Your task to perform on an android device: Open calendar and show me the first week of next month Image 0: 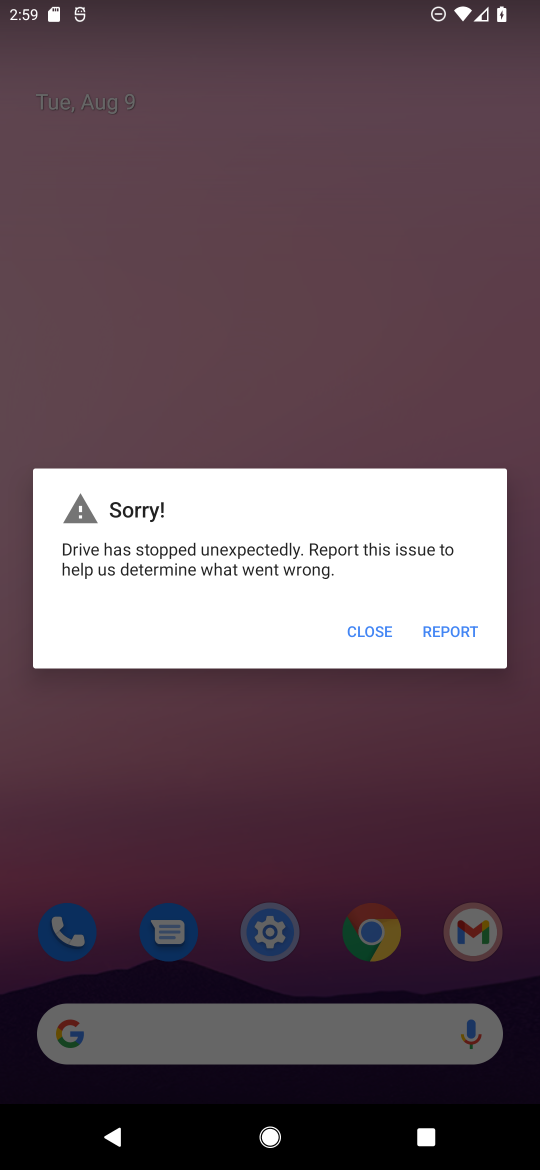
Step 0: press home button
Your task to perform on an android device: Open calendar and show me the first week of next month Image 1: 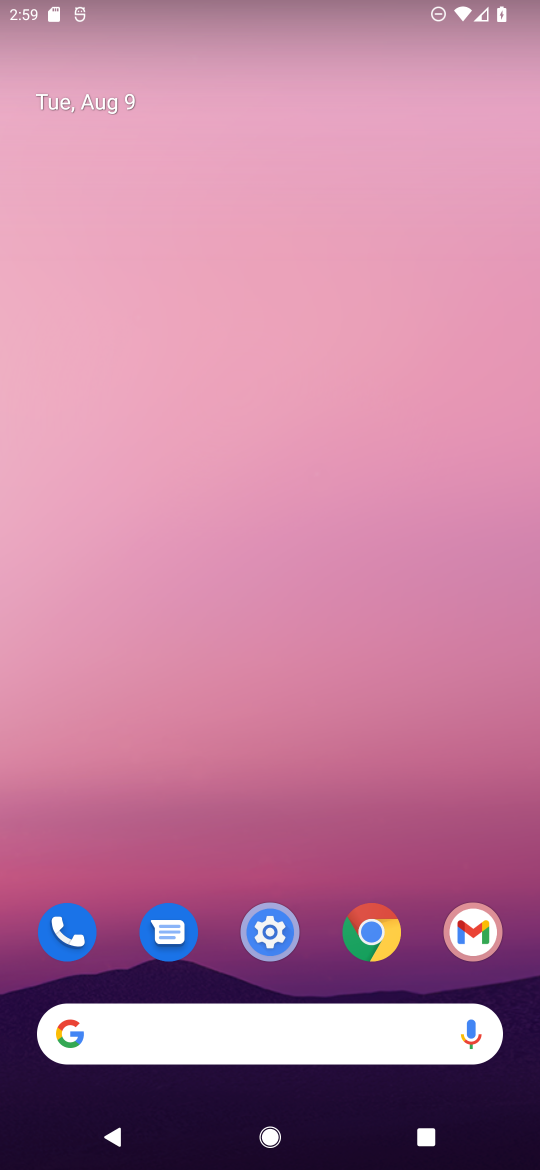
Step 1: drag from (65, 1125) to (340, 447)
Your task to perform on an android device: Open calendar and show me the first week of next month Image 2: 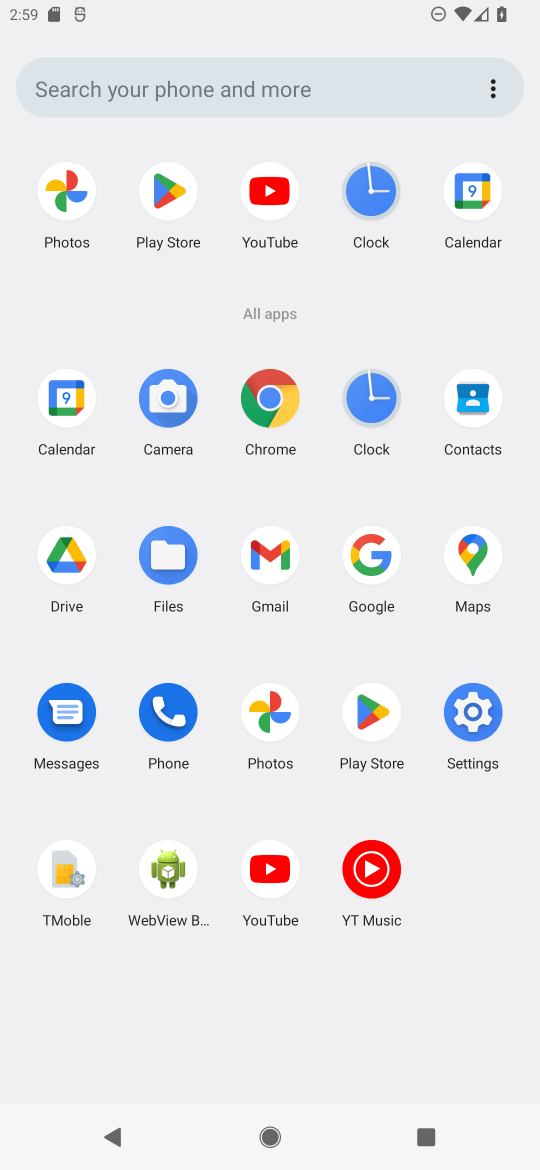
Step 2: click (479, 214)
Your task to perform on an android device: Open calendar and show me the first week of next month Image 3: 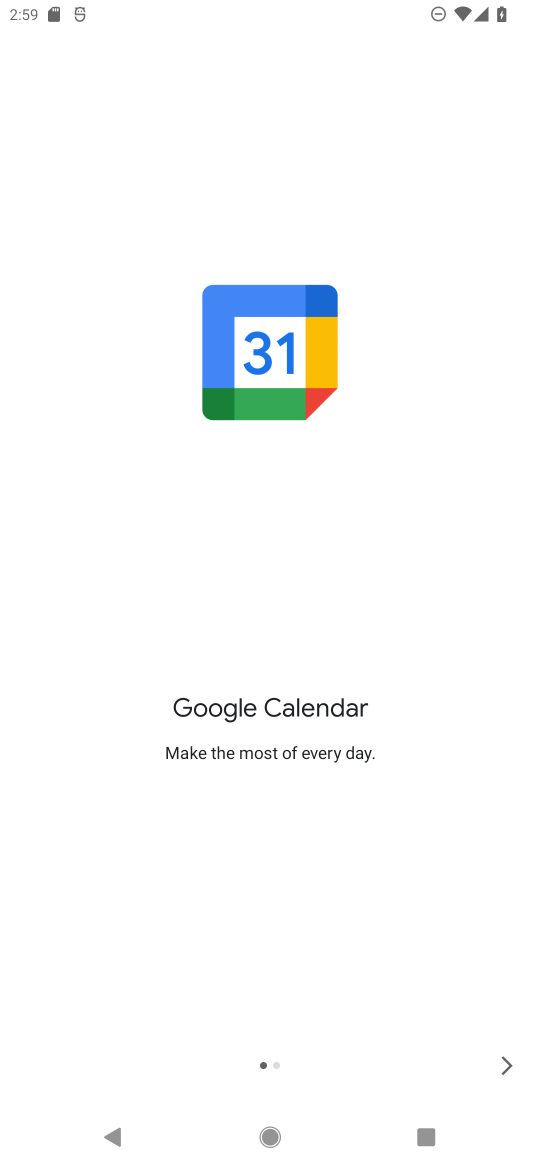
Step 3: click (506, 1065)
Your task to perform on an android device: Open calendar and show me the first week of next month Image 4: 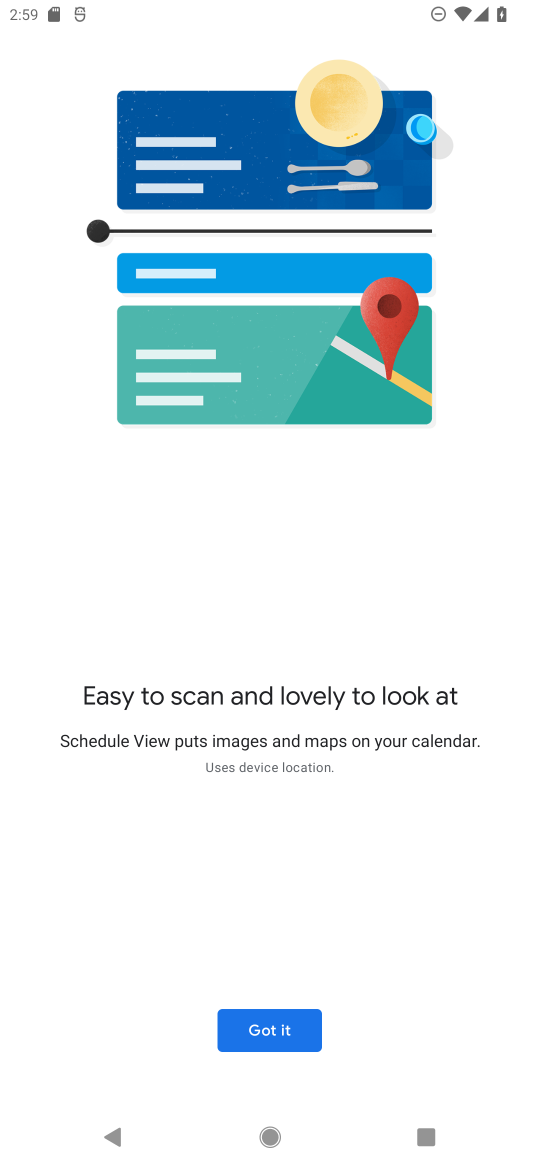
Step 4: click (259, 1023)
Your task to perform on an android device: Open calendar and show me the first week of next month Image 5: 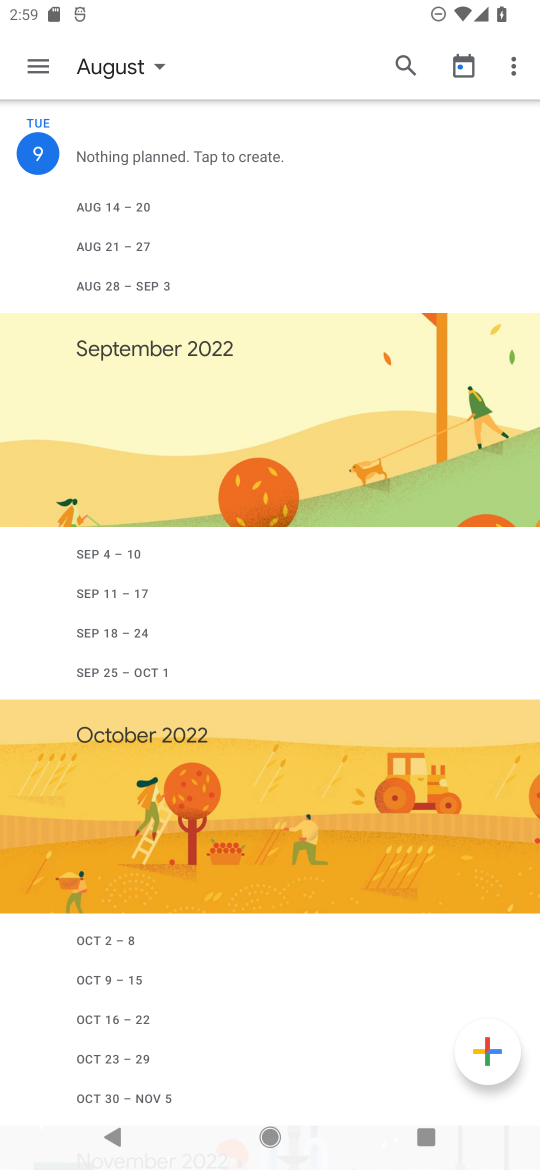
Step 5: click (119, 83)
Your task to perform on an android device: Open calendar and show me the first week of next month Image 6: 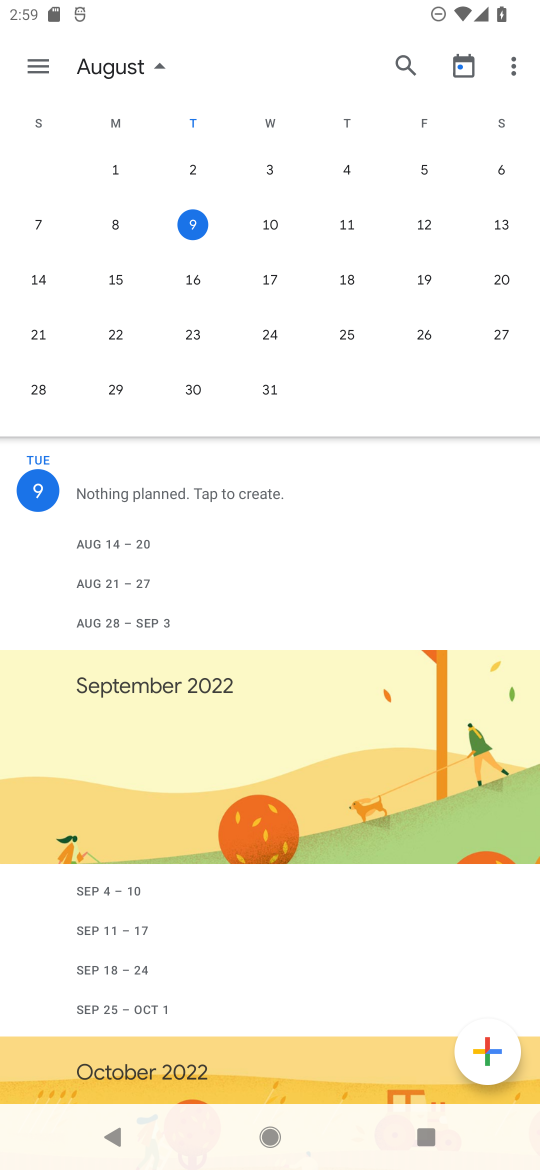
Step 6: task complete